Your task to perform on an android device: turn off javascript in the chrome app Image 0: 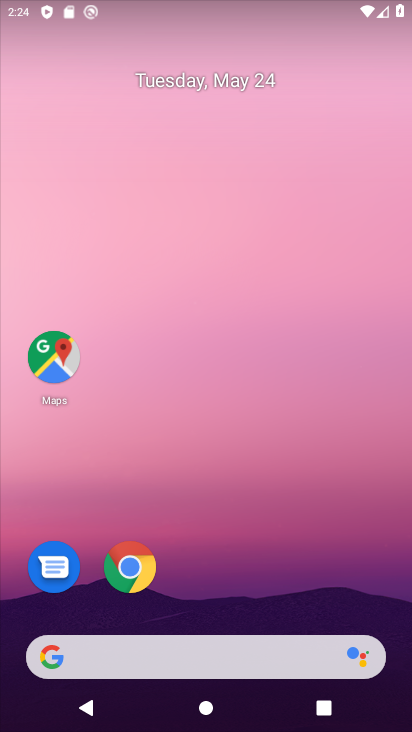
Step 0: click (135, 563)
Your task to perform on an android device: turn off javascript in the chrome app Image 1: 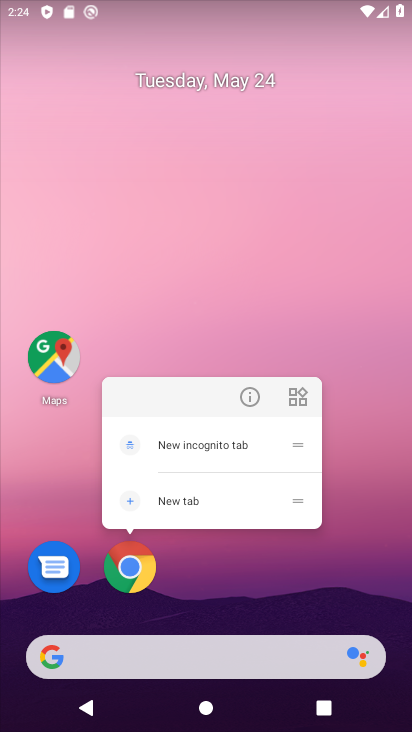
Step 1: click (123, 564)
Your task to perform on an android device: turn off javascript in the chrome app Image 2: 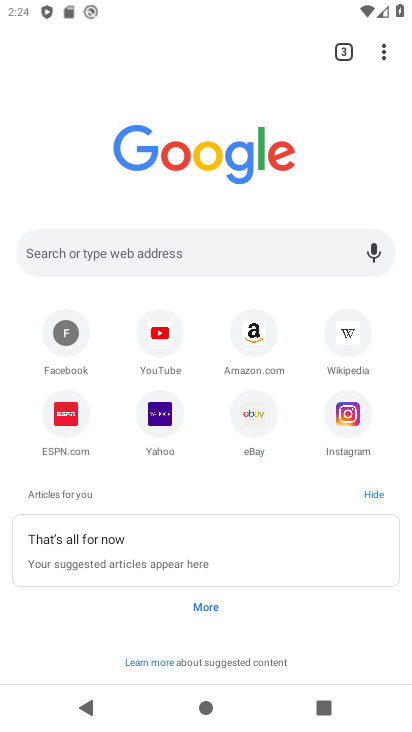
Step 2: drag from (379, 51) to (177, 440)
Your task to perform on an android device: turn off javascript in the chrome app Image 3: 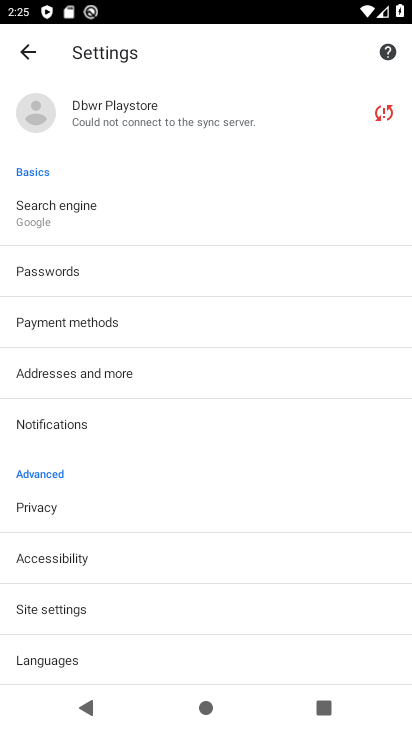
Step 3: click (62, 612)
Your task to perform on an android device: turn off javascript in the chrome app Image 4: 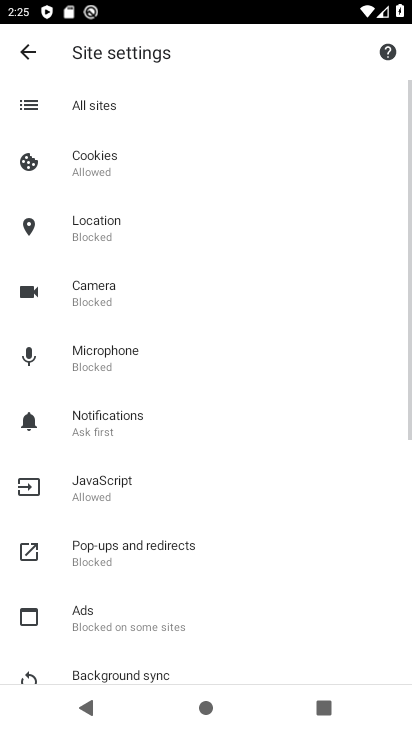
Step 4: click (124, 502)
Your task to perform on an android device: turn off javascript in the chrome app Image 5: 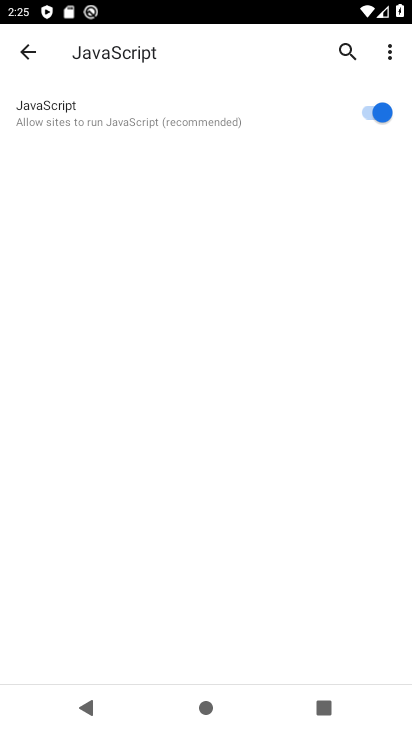
Step 5: click (368, 109)
Your task to perform on an android device: turn off javascript in the chrome app Image 6: 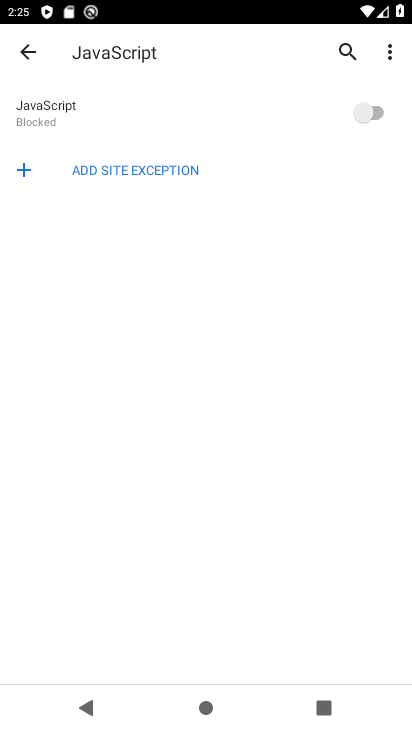
Step 6: task complete